Your task to perform on an android device: find photos in the google photos app Image 0: 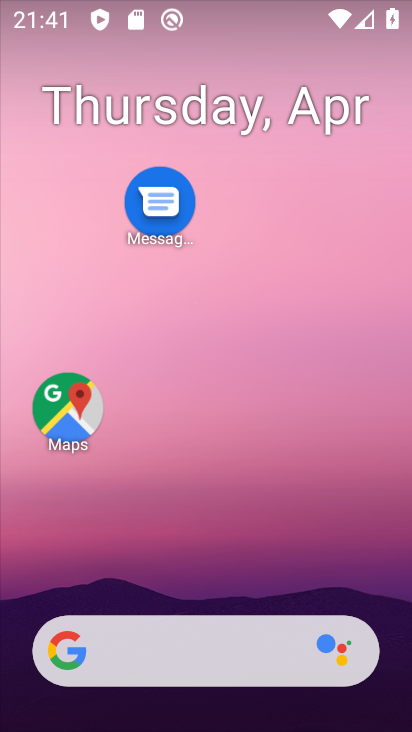
Step 0: drag from (195, 512) to (202, 108)
Your task to perform on an android device: find photos in the google photos app Image 1: 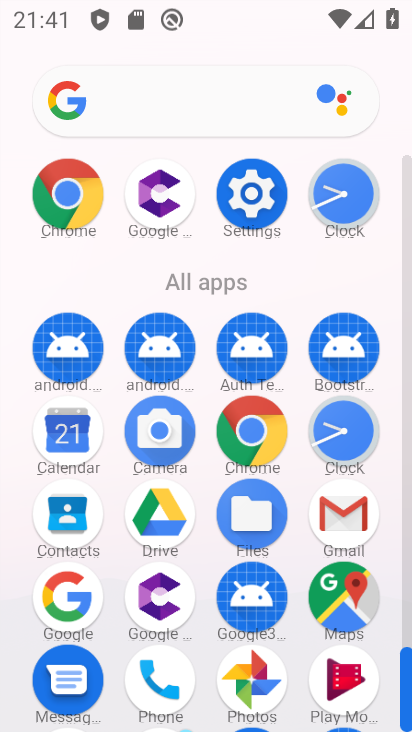
Step 1: click (247, 671)
Your task to perform on an android device: find photos in the google photos app Image 2: 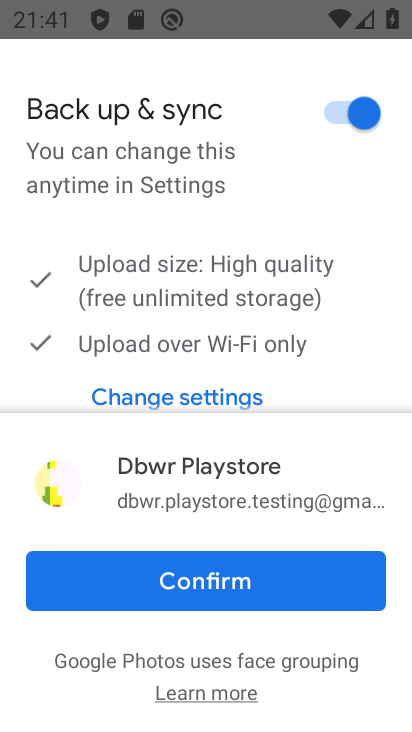
Step 2: click (249, 576)
Your task to perform on an android device: find photos in the google photos app Image 3: 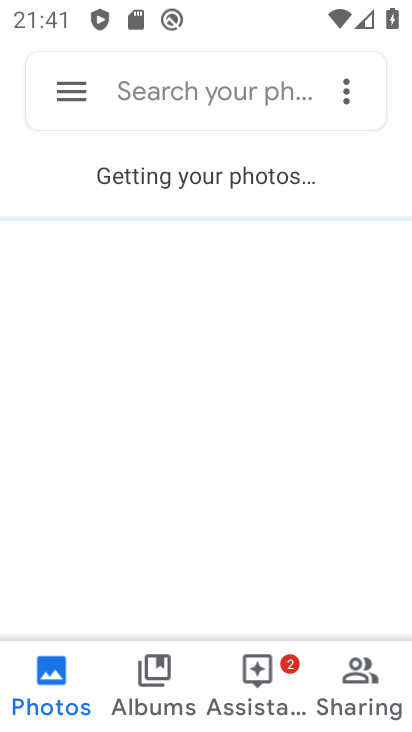
Step 3: click (150, 84)
Your task to perform on an android device: find photos in the google photos app Image 4: 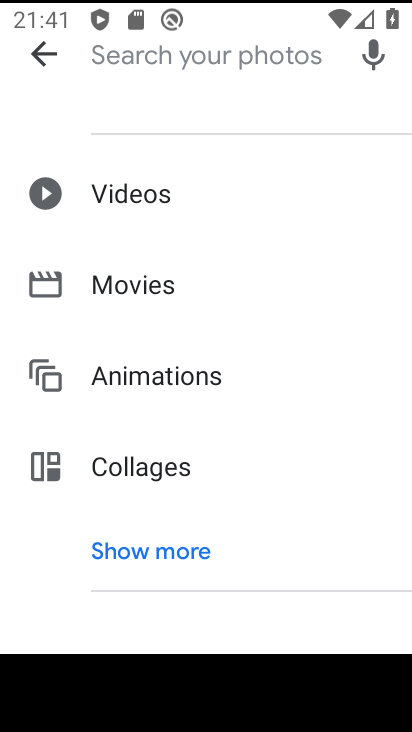
Step 4: type "aa"
Your task to perform on an android device: find photos in the google photos app Image 5: 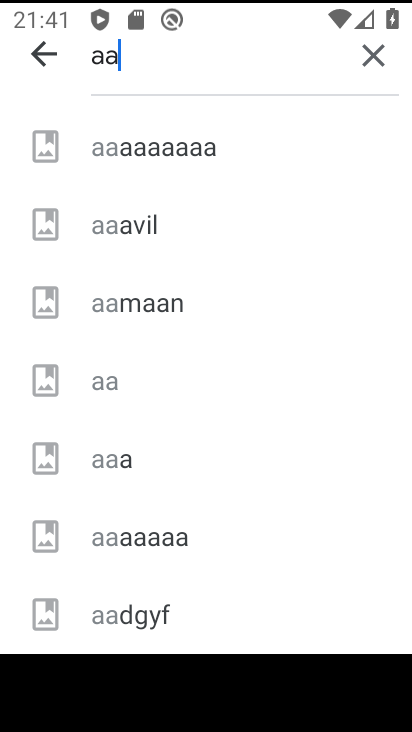
Step 5: click (159, 220)
Your task to perform on an android device: find photos in the google photos app Image 6: 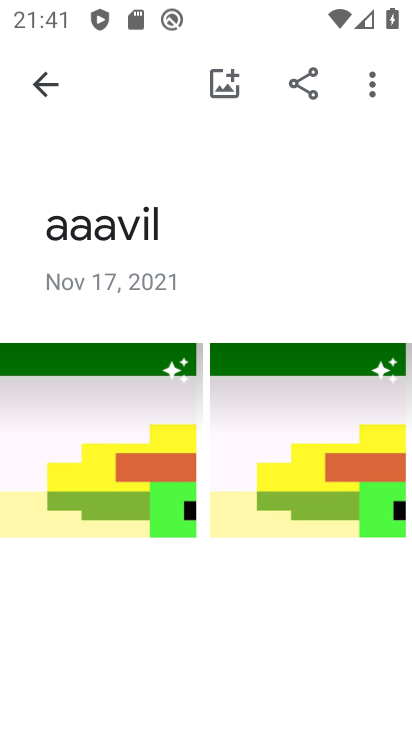
Step 6: task complete